Your task to perform on an android device: find snoozed emails in the gmail app Image 0: 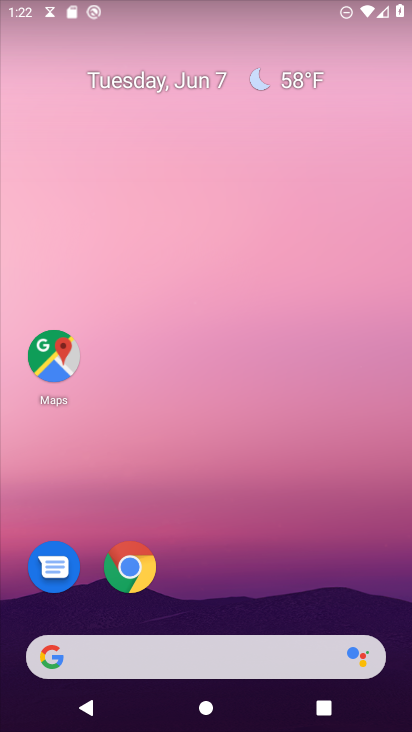
Step 0: drag from (389, 665) to (351, 164)
Your task to perform on an android device: find snoozed emails in the gmail app Image 1: 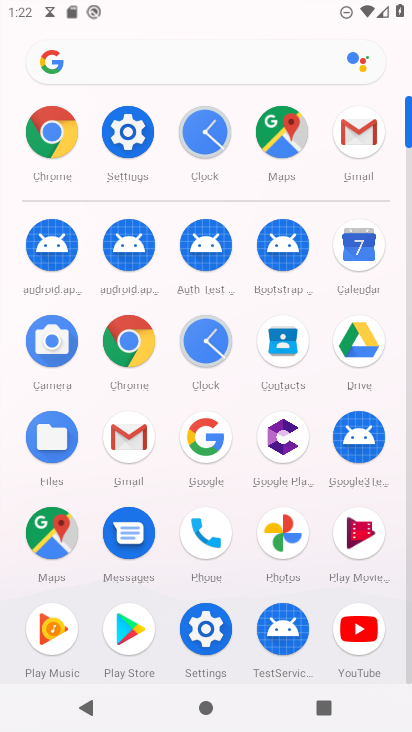
Step 1: click (131, 451)
Your task to perform on an android device: find snoozed emails in the gmail app Image 2: 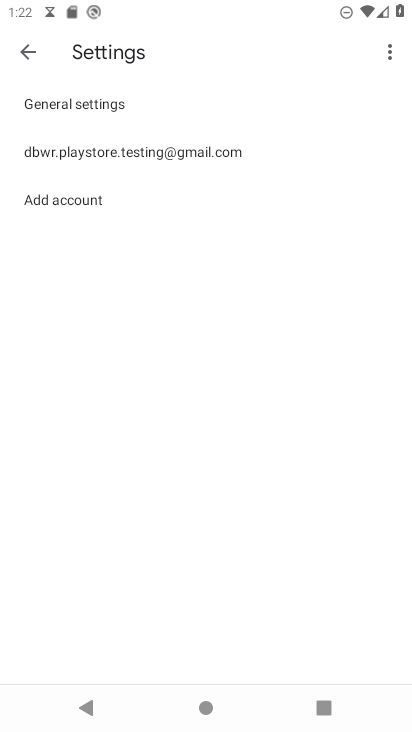
Step 2: click (21, 55)
Your task to perform on an android device: find snoozed emails in the gmail app Image 3: 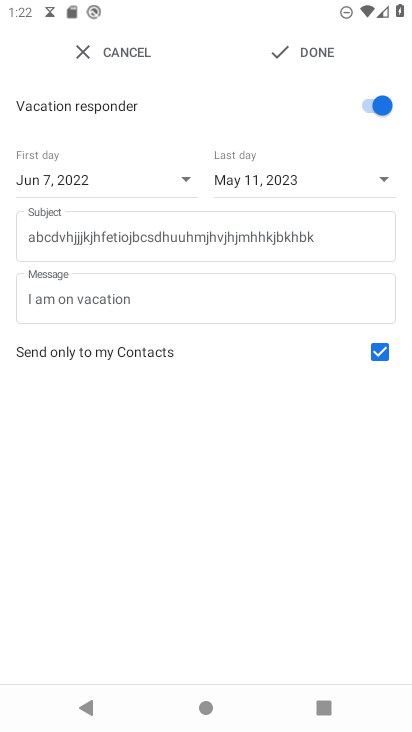
Step 3: press back button
Your task to perform on an android device: find snoozed emails in the gmail app Image 4: 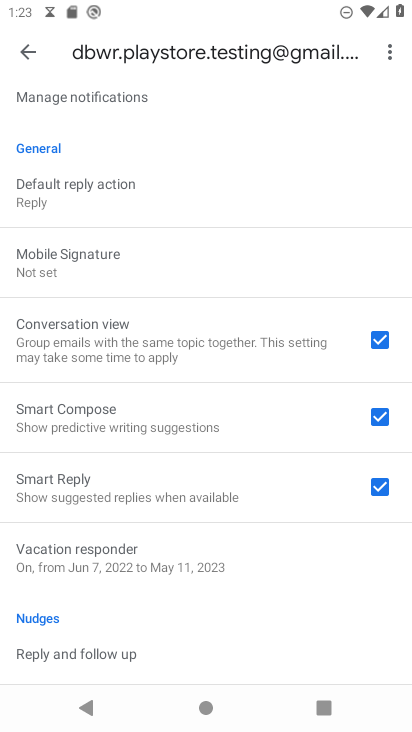
Step 4: click (28, 52)
Your task to perform on an android device: find snoozed emails in the gmail app Image 5: 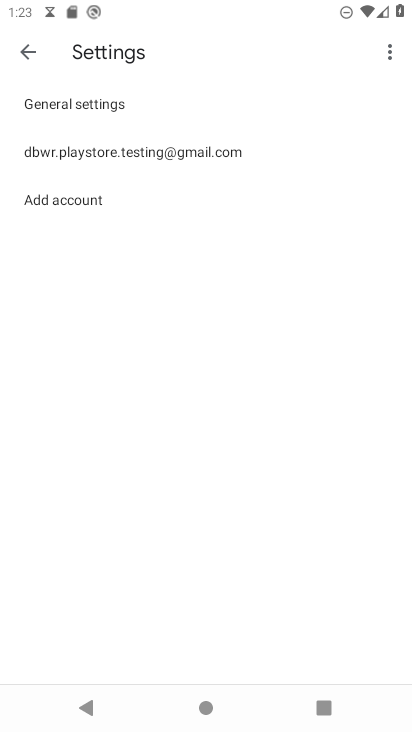
Step 5: click (17, 52)
Your task to perform on an android device: find snoozed emails in the gmail app Image 6: 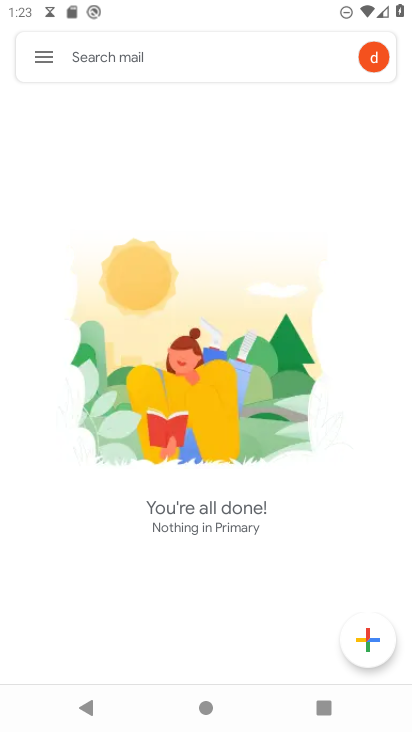
Step 6: click (34, 53)
Your task to perform on an android device: find snoozed emails in the gmail app Image 7: 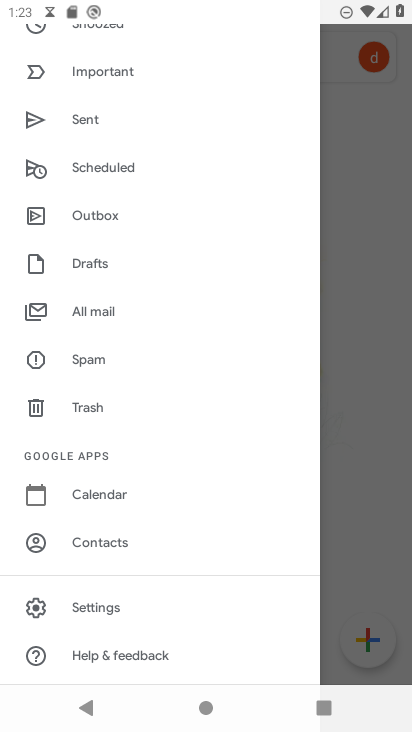
Step 7: drag from (196, 215) to (226, 574)
Your task to perform on an android device: find snoozed emails in the gmail app Image 8: 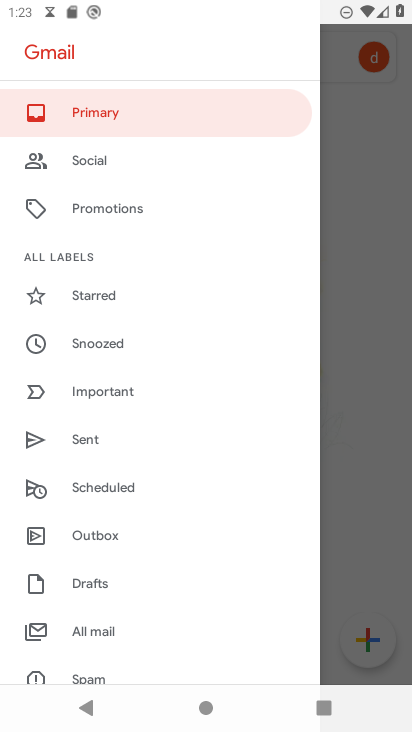
Step 8: drag from (179, 600) to (164, 242)
Your task to perform on an android device: find snoozed emails in the gmail app Image 9: 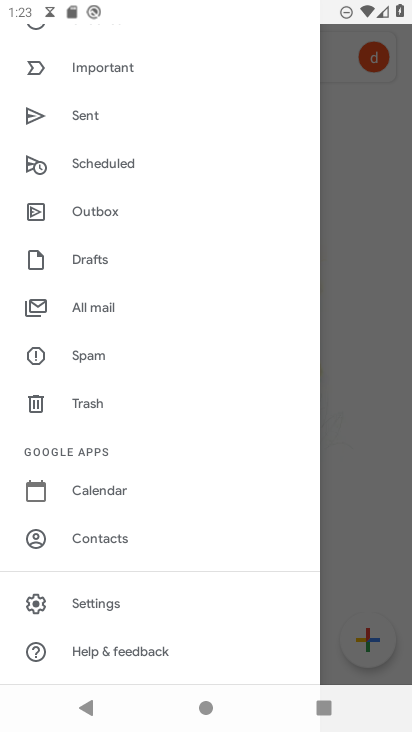
Step 9: drag from (168, 164) to (173, 600)
Your task to perform on an android device: find snoozed emails in the gmail app Image 10: 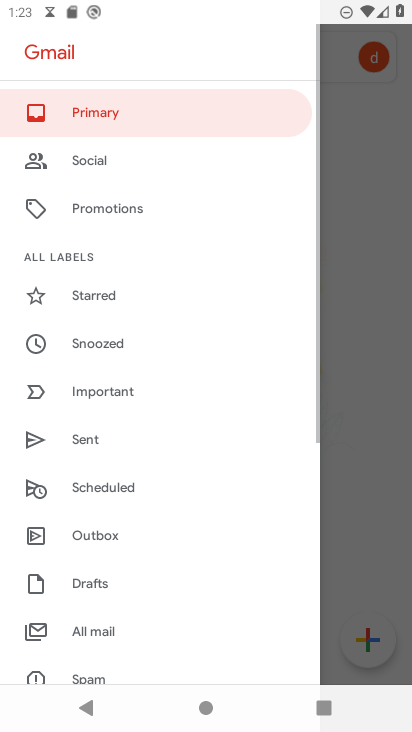
Step 10: click (100, 337)
Your task to perform on an android device: find snoozed emails in the gmail app Image 11: 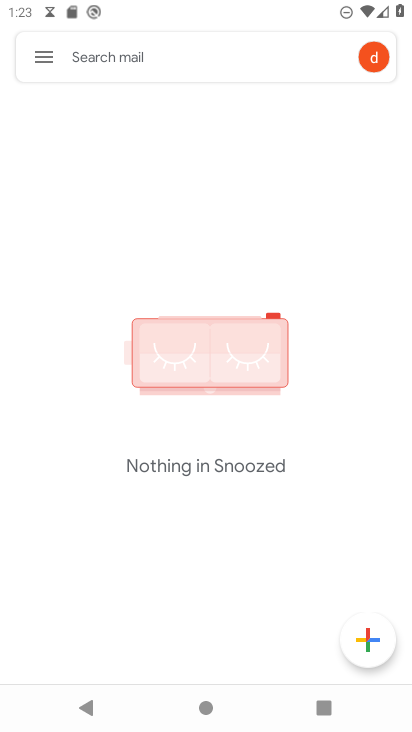
Step 11: task complete